Your task to perform on an android device: open a new tab in the chrome app Image 0: 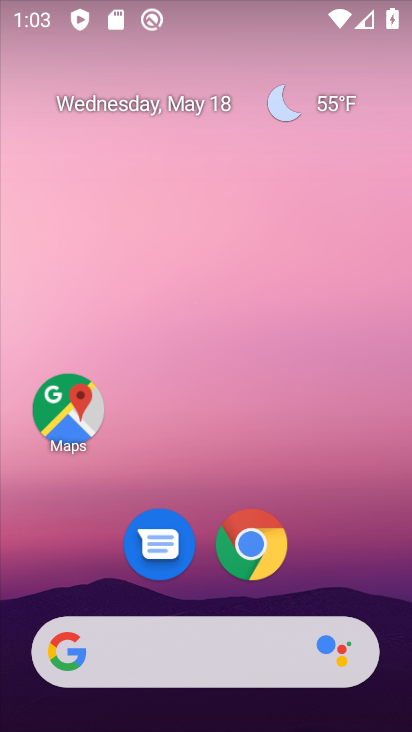
Step 0: click (261, 547)
Your task to perform on an android device: open a new tab in the chrome app Image 1: 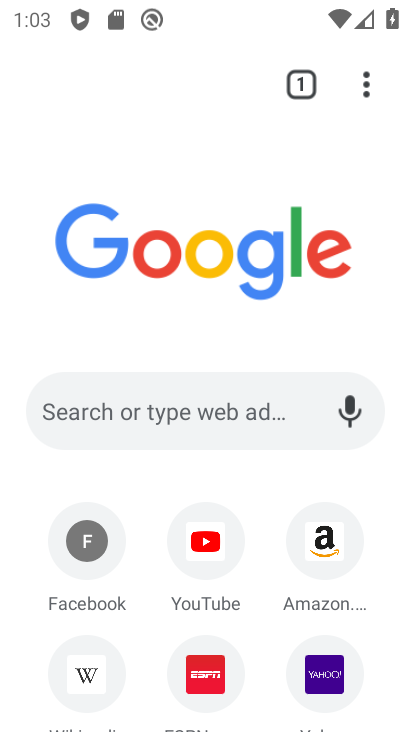
Step 1: click (299, 77)
Your task to perform on an android device: open a new tab in the chrome app Image 2: 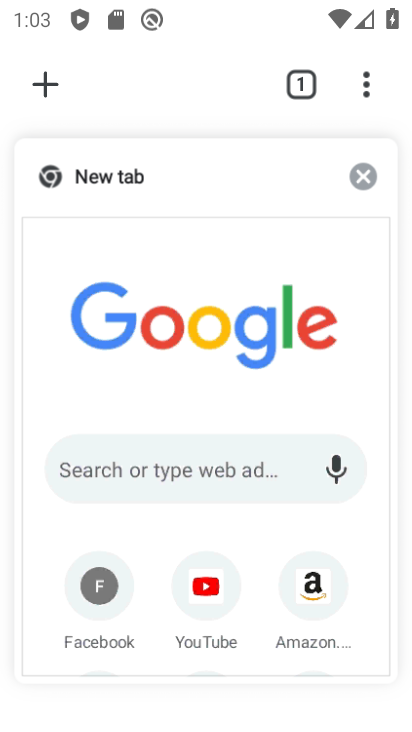
Step 2: click (45, 76)
Your task to perform on an android device: open a new tab in the chrome app Image 3: 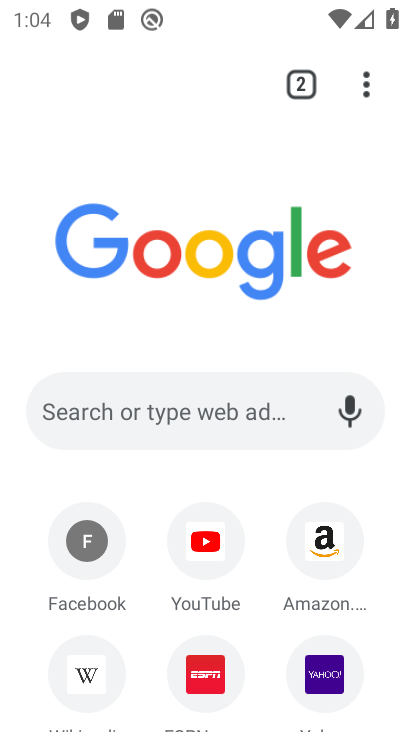
Step 3: task complete